Your task to perform on an android device: turn pop-ups on in chrome Image 0: 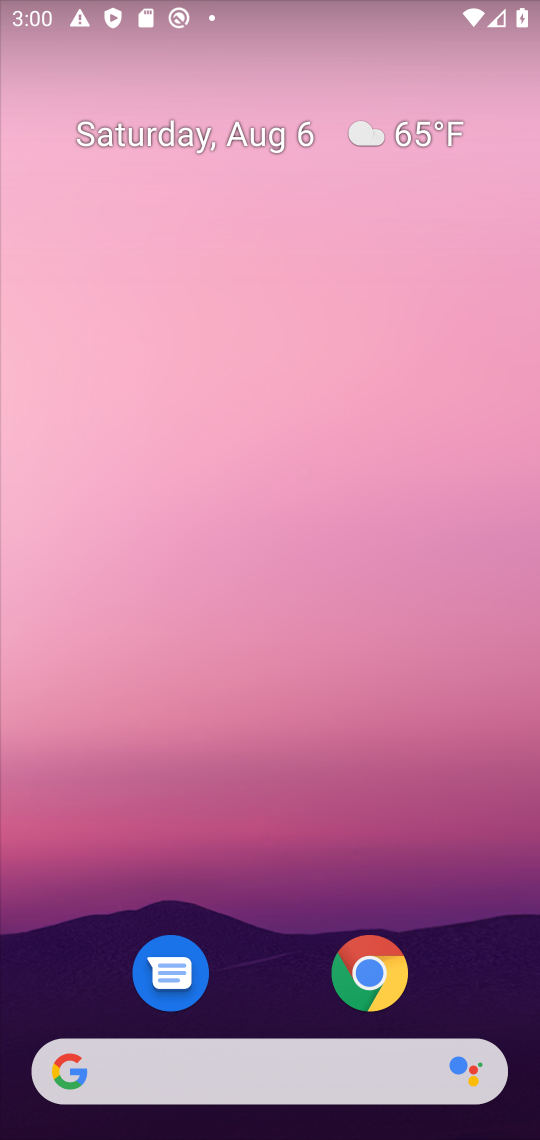
Step 0: click (360, 967)
Your task to perform on an android device: turn pop-ups on in chrome Image 1: 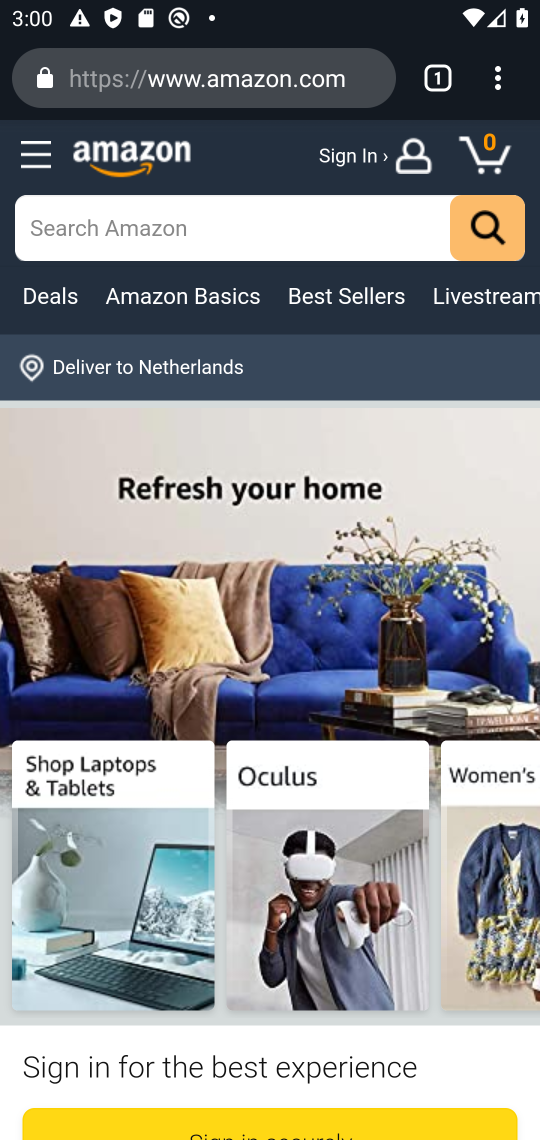
Step 1: click (494, 87)
Your task to perform on an android device: turn pop-ups on in chrome Image 2: 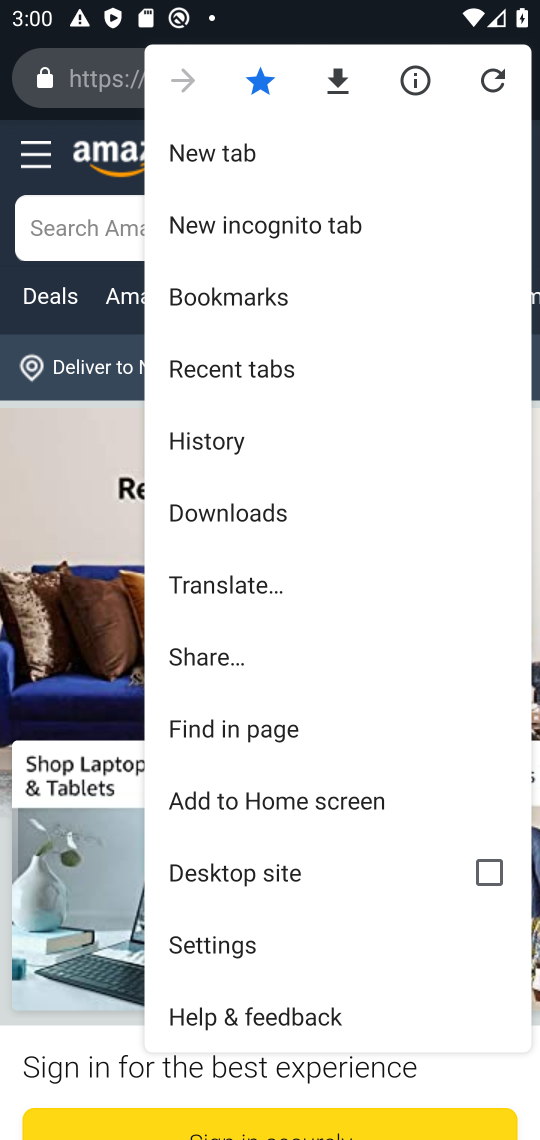
Step 2: click (211, 954)
Your task to perform on an android device: turn pop-ups on in chrome Image 3: 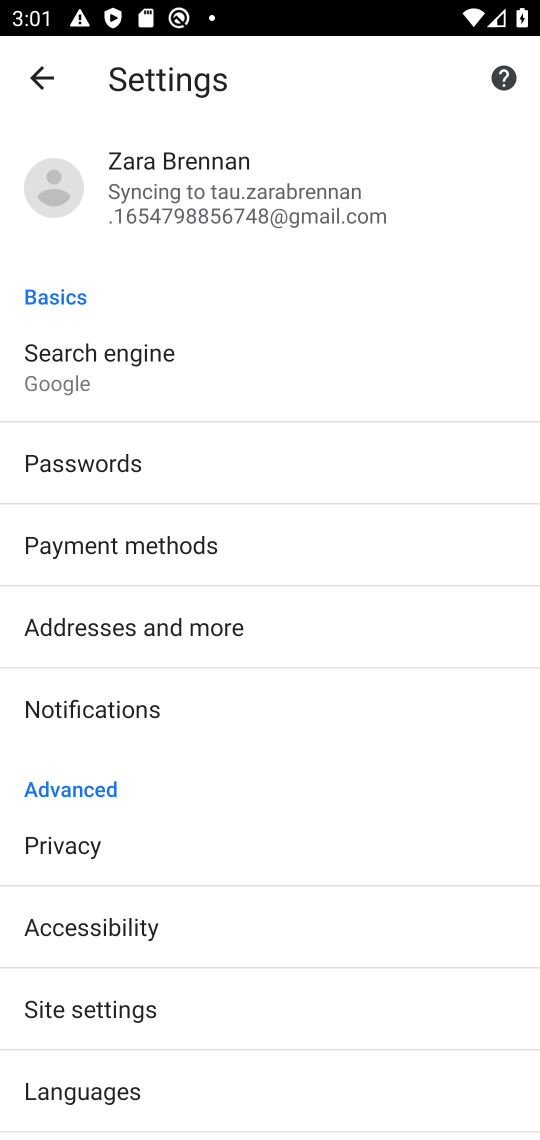
Step 3: click (121, 1012)
Your task to perform on an android device: turn pop-ups on in chrome Image 4: 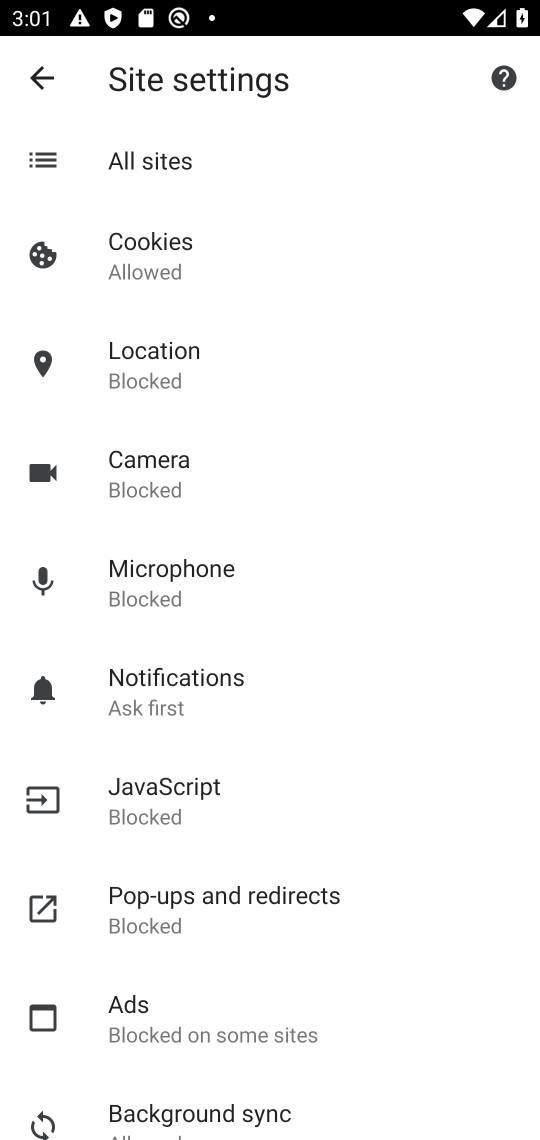
Step 4: click (138, 897)
Your task to perform on an android device: turn pop-ups on in chrome Image 5: 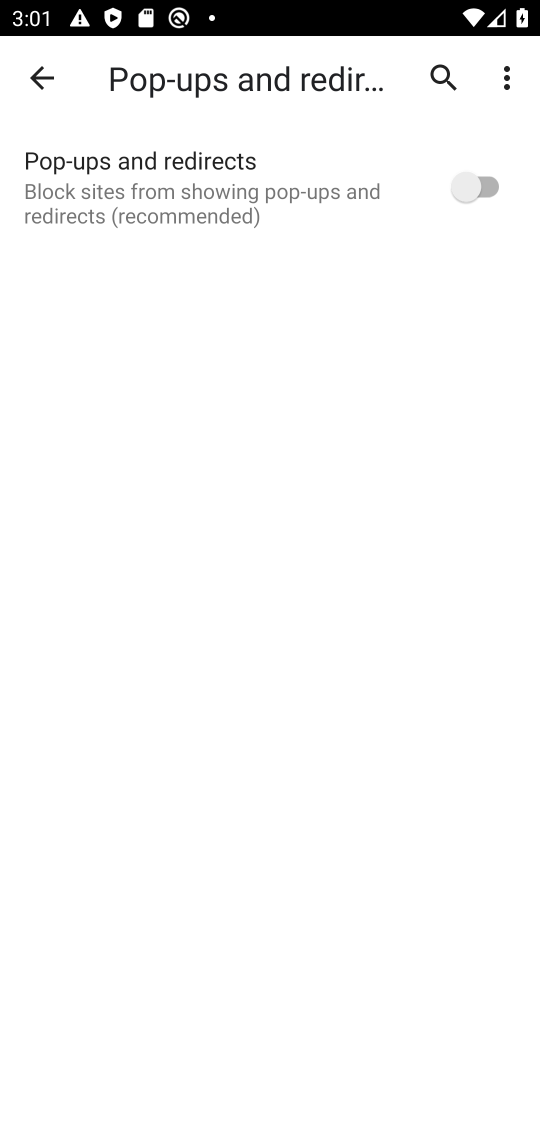
Step 5: click (484, 189)
Your task to perform on an android device: turn pop-ups on in chrome Image 6: 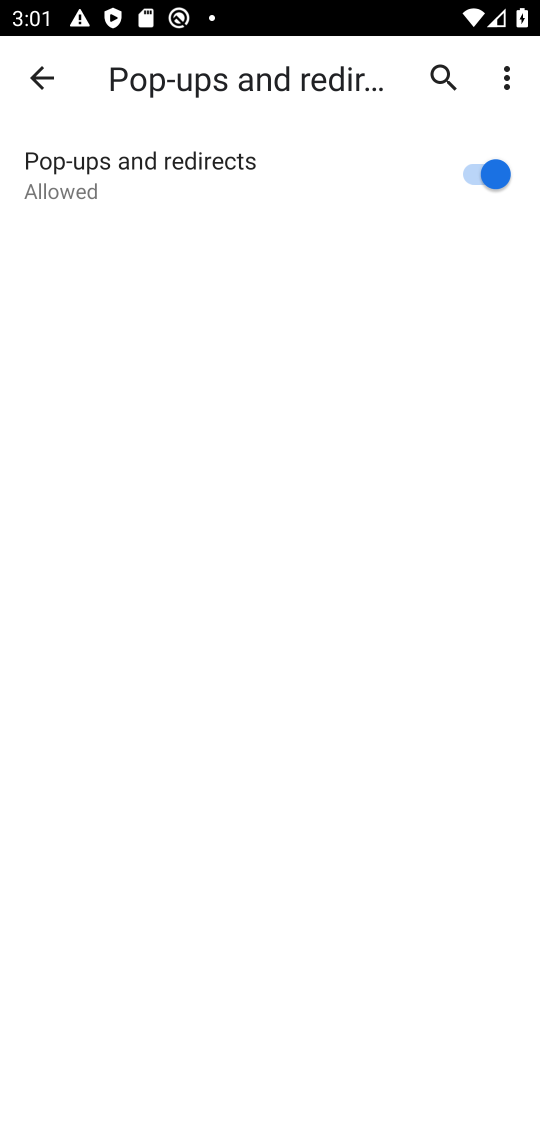
Step 6: task complete